Your task to perform on an android device: turn off data saver in the chrome app Image 0: 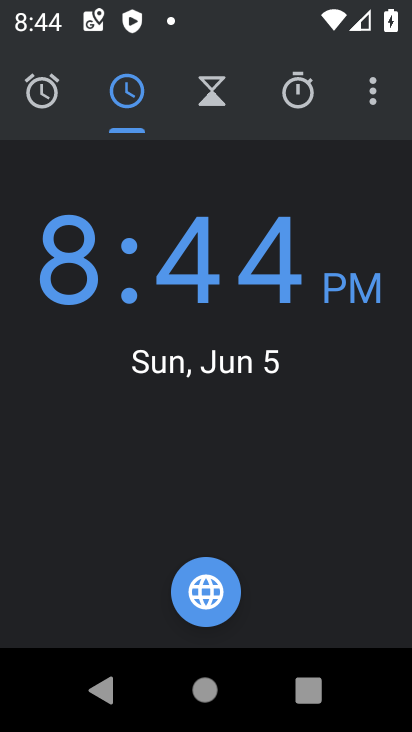
Step 0: press home button
Your task to perform on an android device: turn off data saver in the chrome app Image 1: 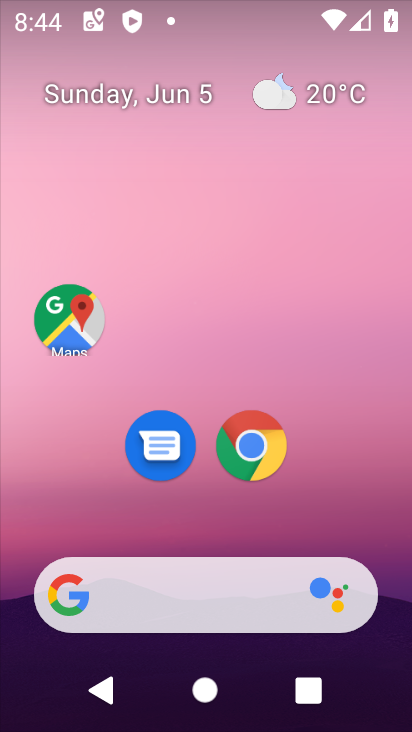
Step 1: drag from (296, 609) to (324, 7)
Your task to perform on an android device: turn off data saver in the chrome app Image 2: 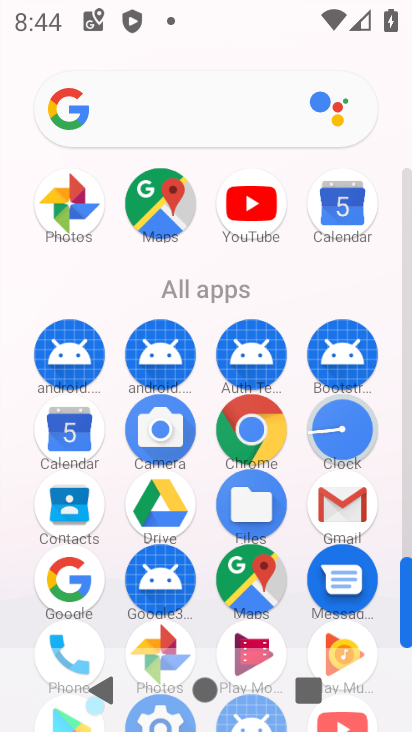
Step 2: click (351, 515)
Your task to perform on an android device: turn off data saver in the chrome app Image 3: 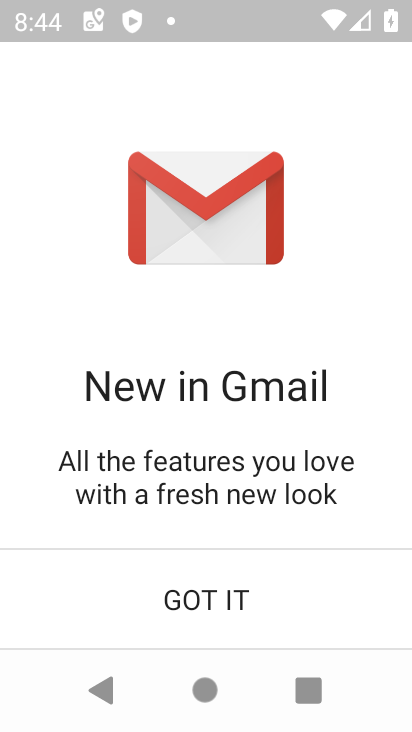
Step 3: press home button
Your task to perform on an android device: turn off data saver in the chrome app Image 4: 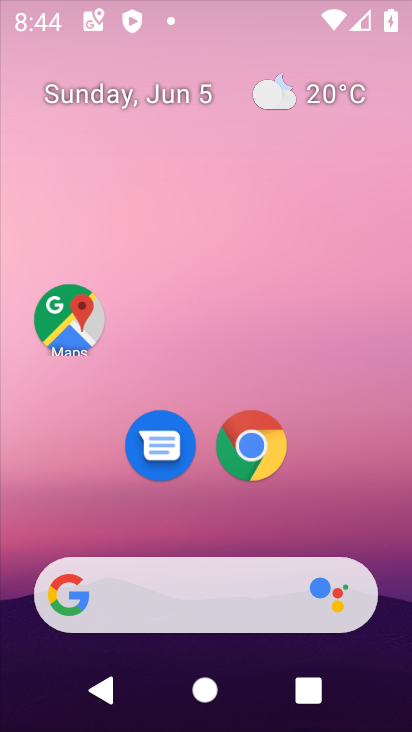
Step 4: drag from (242, 595) to (252, 114)
Your task to perform on an android device: turn off data saver in the chrome app Image 5: 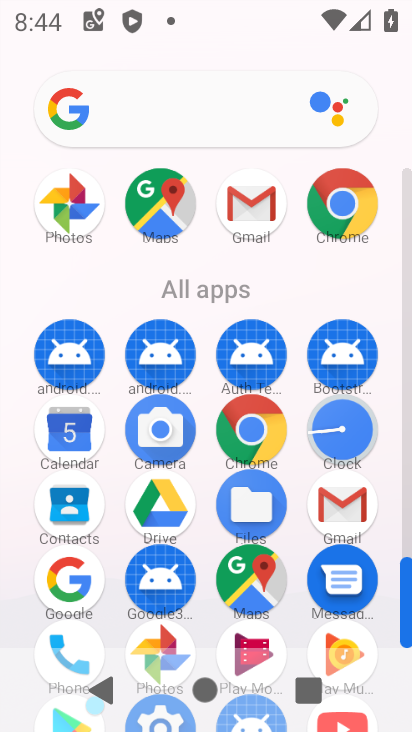
Step 5: click (264, 416)
Your task to perform on an android device: turn off data saver in the chrome app Image 6: 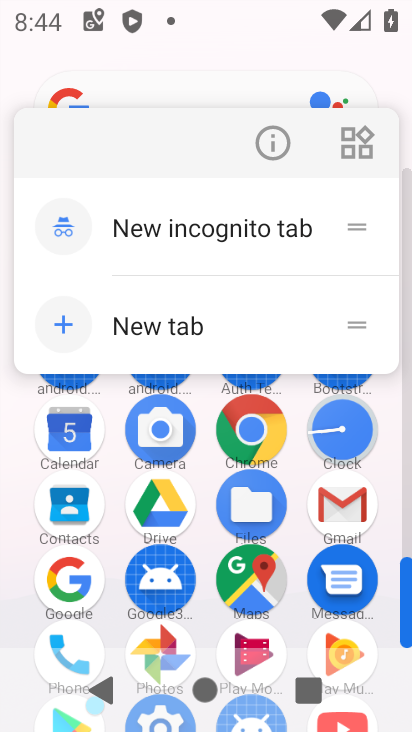
Step 6: click (264, 416)
Your task to perform on an android device: turn off data saver in the chrome app Image 7: 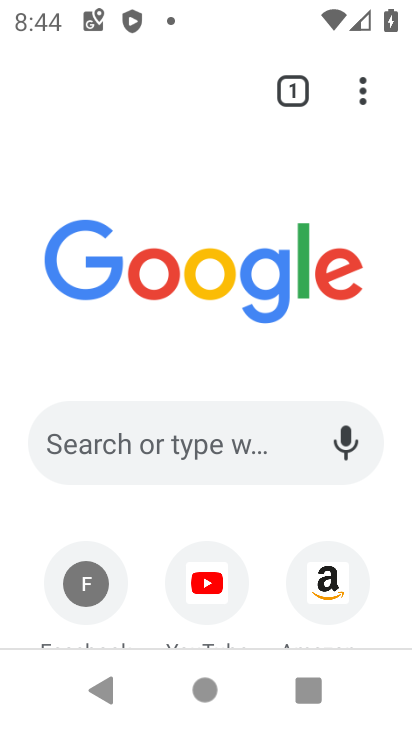
Step 7: drag from (366, 87) to (265, 485)
Your task to perform on an android device: turn off data saver in the chrome app Image 8: 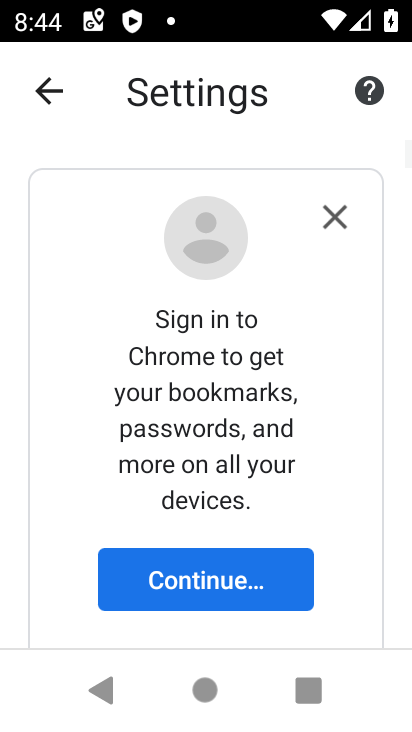
Step 8: drag from (343, 637) to (346, 100)
Your task to perform on an android device: turn off data saver in the chrome app Image 9: 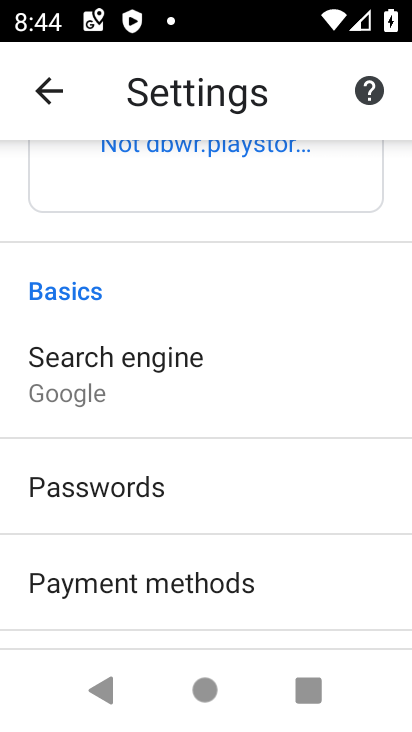
Step 9: drag from (216, 614) to (306, 258)
Your task to perform on an android device: turn off data saver in the chrome app Image 10: 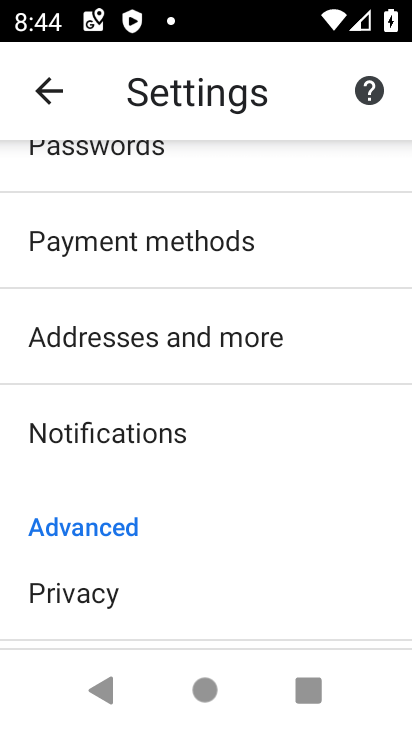
Step 10: drag from (217, 622) to (249, 242)
Your task to perform on an android device: turn off data saver in the chrome app Image 11: 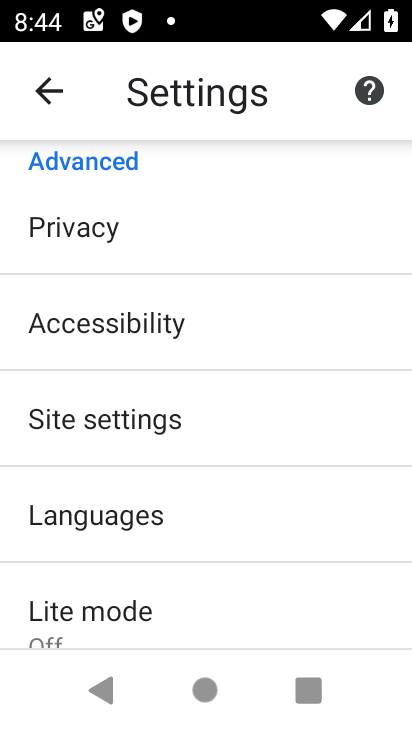
Step 11: click (165, 604)
Your task to perform on an android device: turn off data saver in the chrome app Image 12: 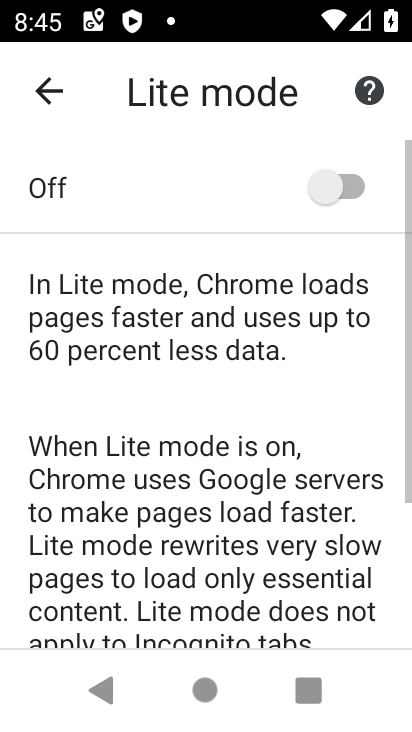
Step 12: task complete